Your task to perform on an android device: manage bookmarks in the chrome app Image 0: 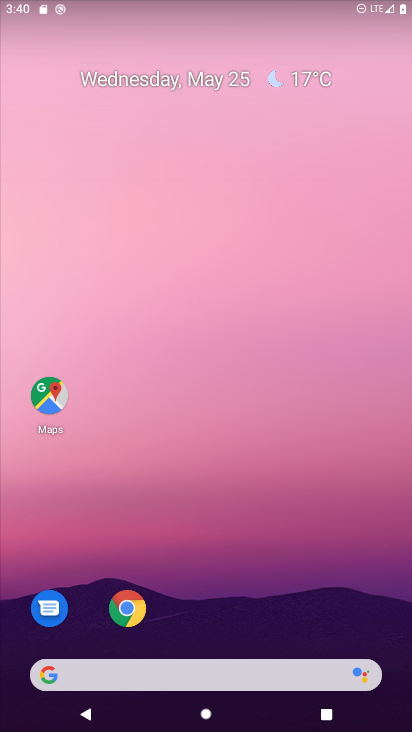
Step 0: click (129, 610)
Your task to perform on an android device: manage bookmarks in the chrome app Image 1: 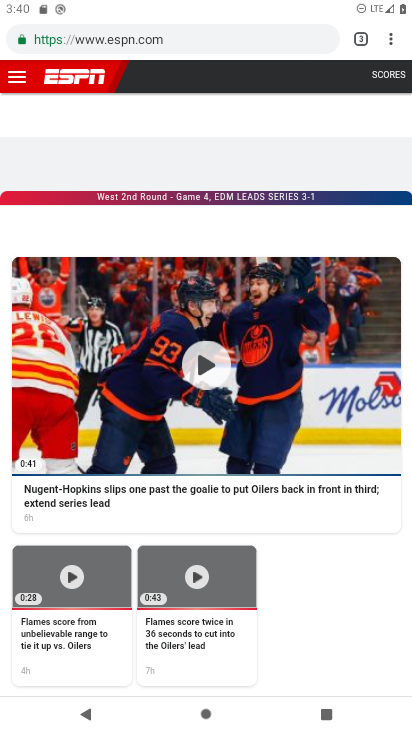
Step 1: click (389, 35)
Your task to perform on an android device: manage bookmarks in the chrome app Image 2: 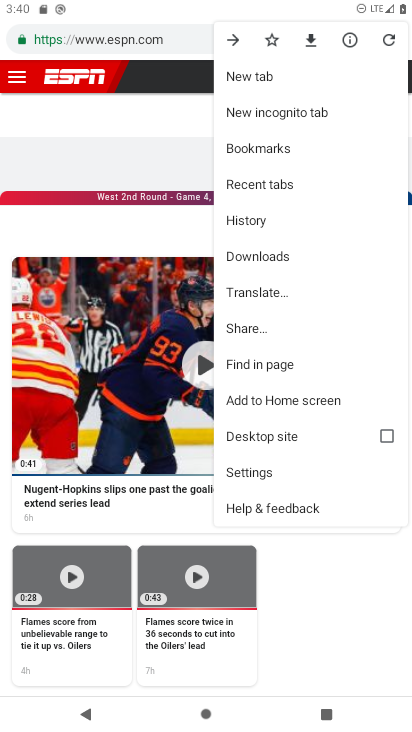
Step 2: click (254, 145)
Your task to perform on an android device: manage bookmarks in the chrome app Image 3: 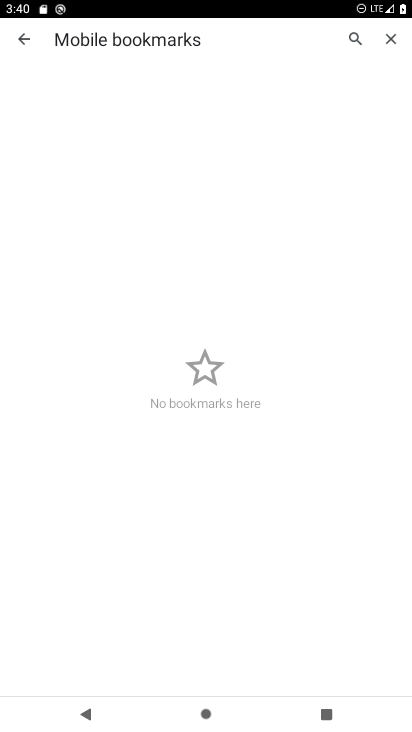
Step 3: task complete